Your task to perform on an android device: open a bookmark in the chrome app Image 0: 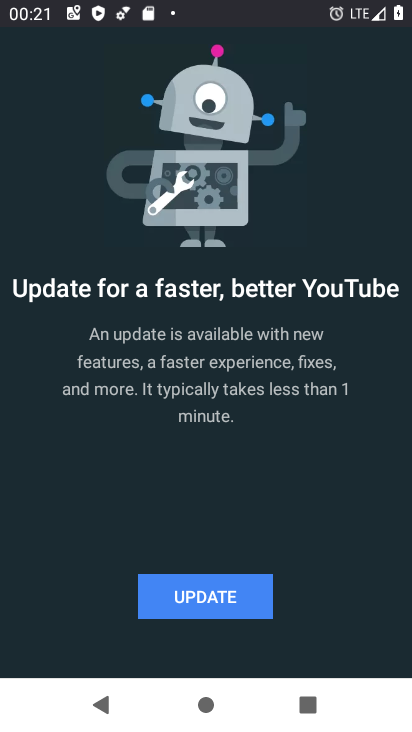
Step 0: press home button
Your task to perform on an android device: open a bookmark in the chrome app Image 1: 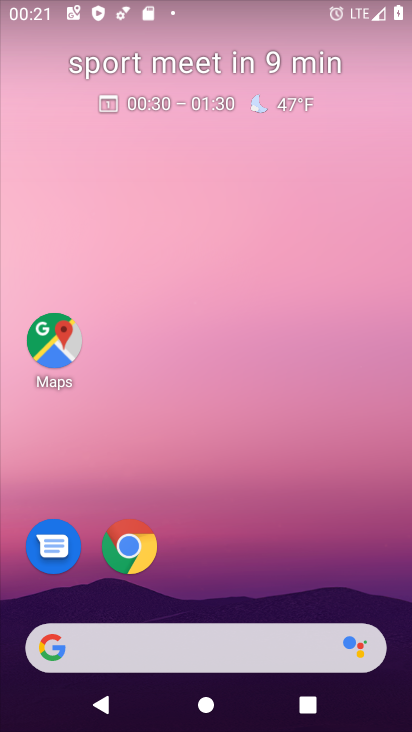
Step 1: click (133, 550)
Your task to perform on an android device: open a bookmark in the chrome app Image 2: 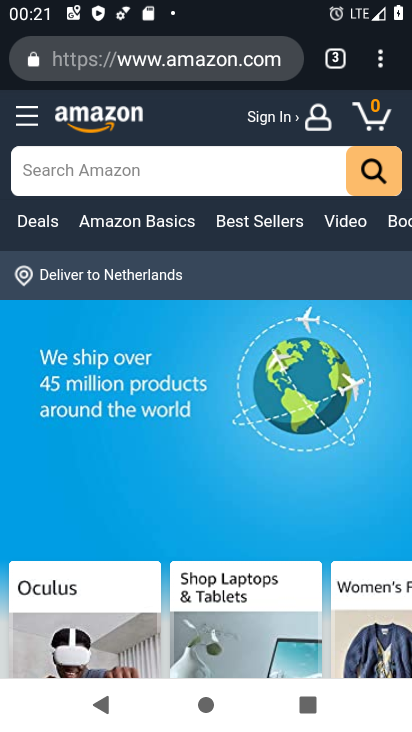
Step 2: task complete